Your task to perform on an android device: Open calendar and show me the second week of next month Image 0: 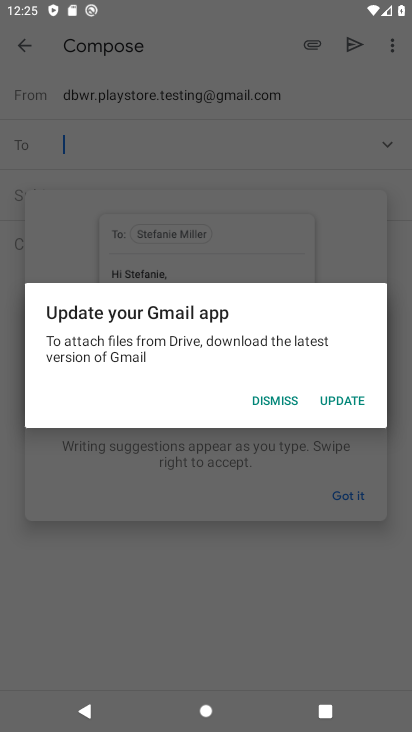
Step 0: press home button
Your task to perform on an android device: Open calendar and show me the second week of next month Image 1: 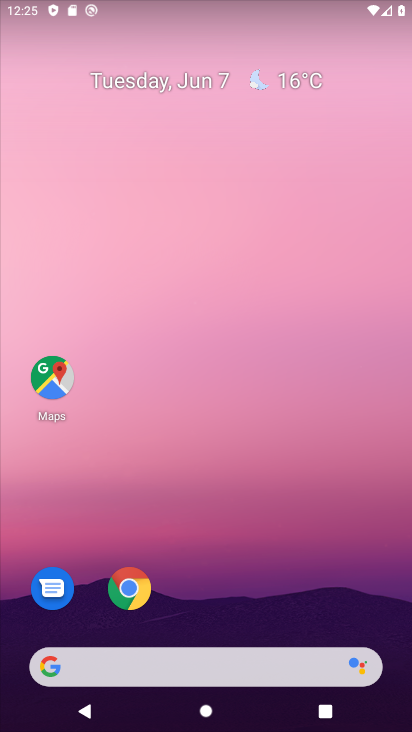
Step 1: drag from (242, 637) to (242, 379)
Your task to perform on an android device: Open calendar and show me the second week of next month Image 2: 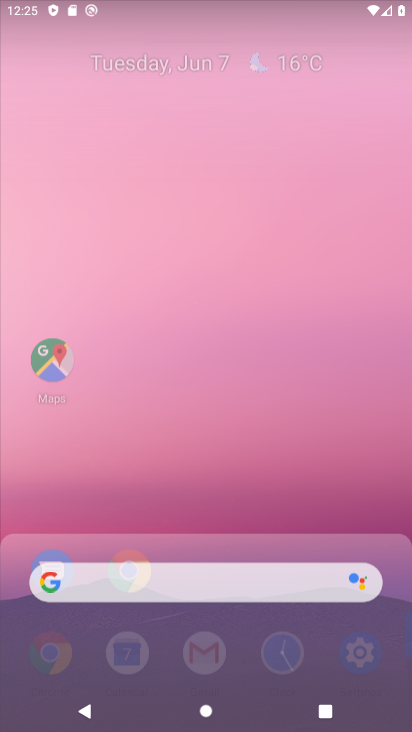
Step 2: click (242, 379)
Your task to perform on an android device: Open calendar and show me the second week of next month Image 3: 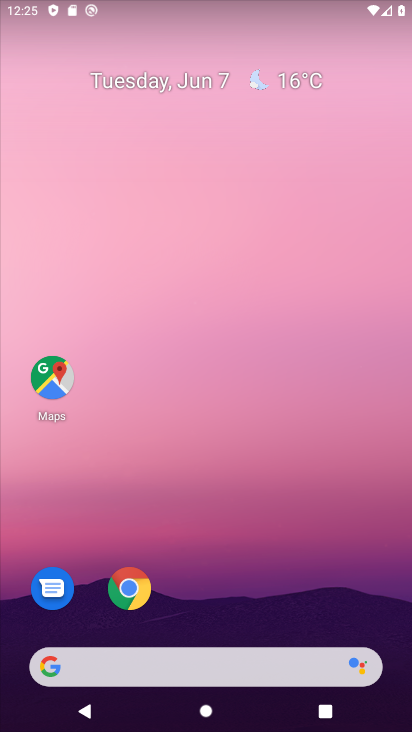
Step 3: drag from (264, 609) to (229, 204)
Your task to perform on an android device: Open calendar and show me the second week of next month Image 4: 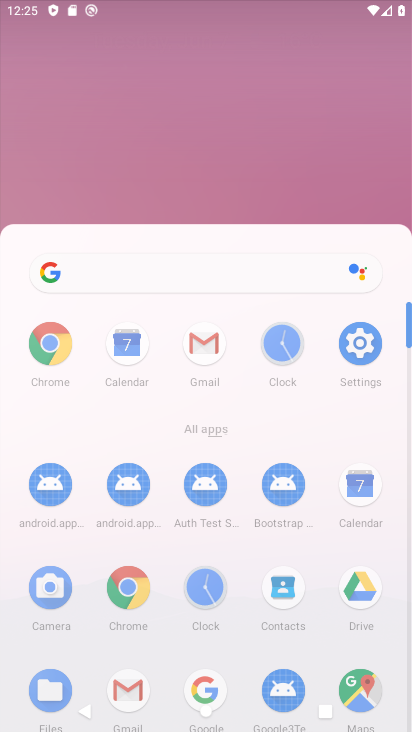
Step 4: drag from (229, 203) to (240, 128)
Your task to perform on an android device: Open calendar and show me the second week of next month Image 5: 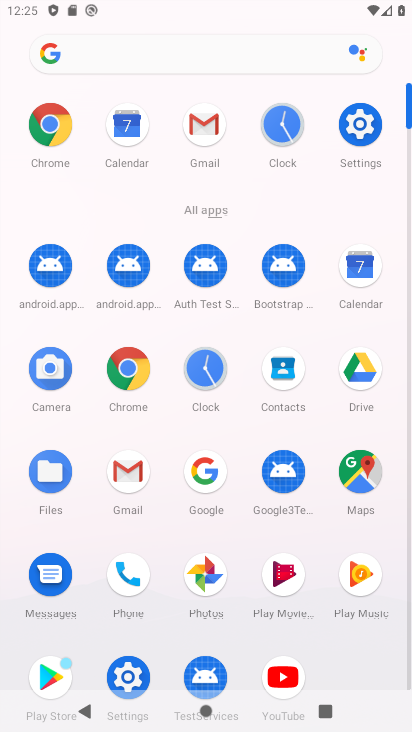
Step 5: click (386, 283)
Your task to perform on an android device: Open calendar and show me the second week of next month Image 6: 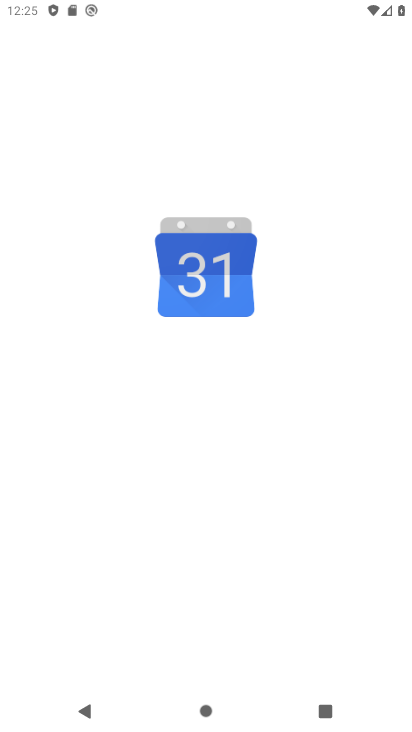
Step 6: task complete